Your task to perform on an android device: change the clock display to digital Image 0: 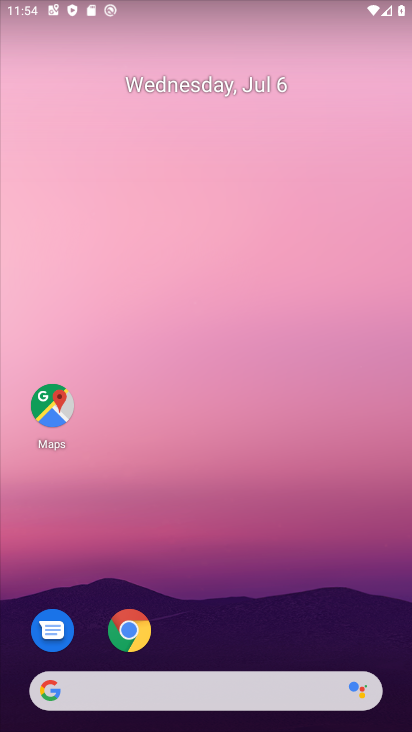
Step 0: drag from (221, 479) to (241, 84)
Your task to perform on an android device: change the clock display to digital Image 1: 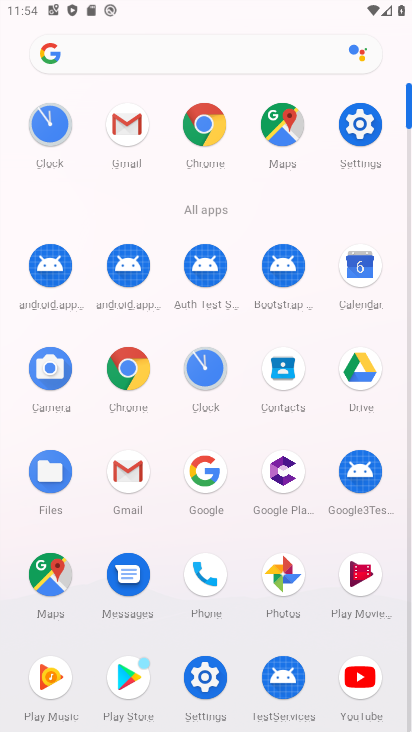
Step 1: click (216, 376)
Your task to perform on an android device: change the clock display to digital Image 2: 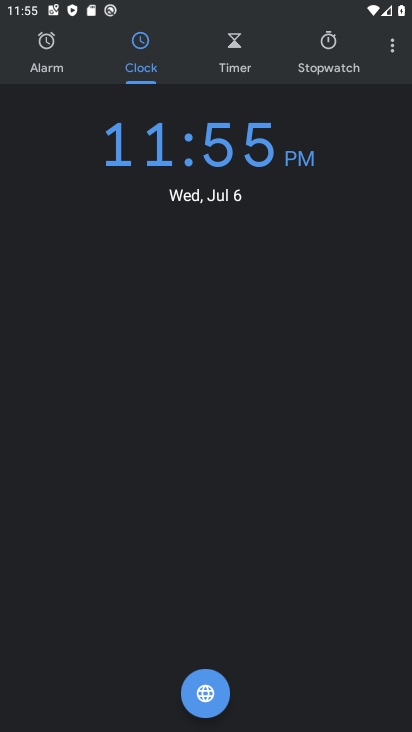
Step 2: click (394, 34)
Your task to perform on an android device: change the clock display to digital Image 3: 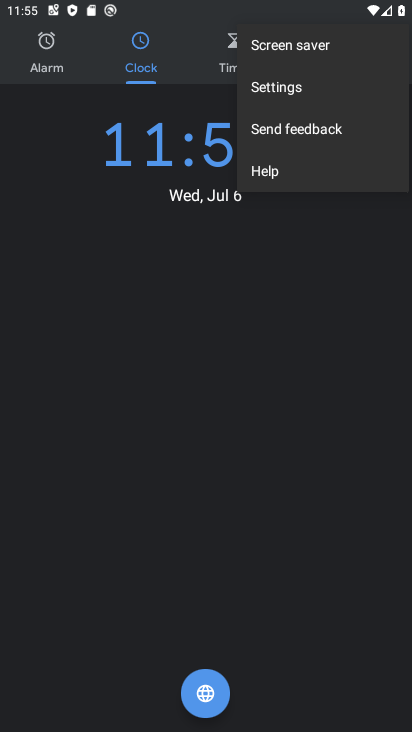
Step 3: click (291, 92)
Your task to perform on an android device: change the clock display to digital Image 4: 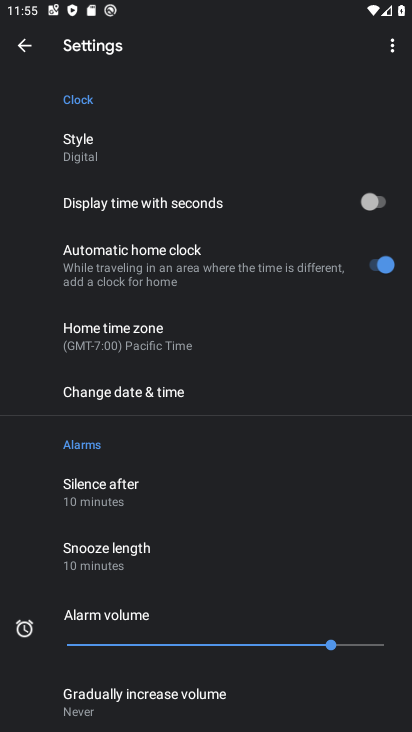
Step 4: click (97, 162)
Your task to perform on an android device: change the clock display to digital Image 5: 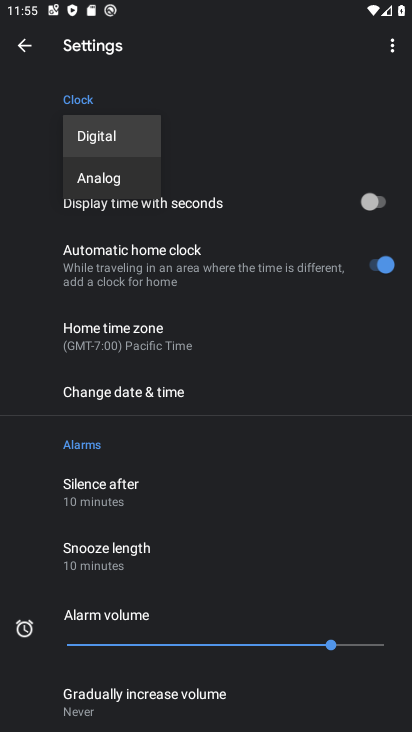
Step 5: task complete